Your task to perform on an android device: snooze an email in the gmail app Image 0: 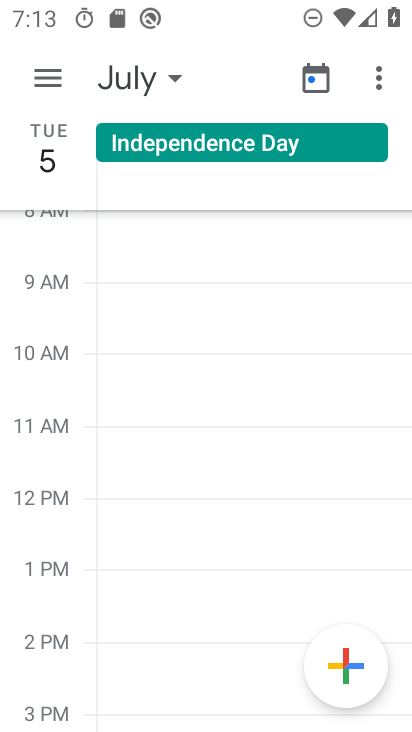
Step 0: press home button
Your task to perform on an android device: snooze an email in the gmail app Image 1: 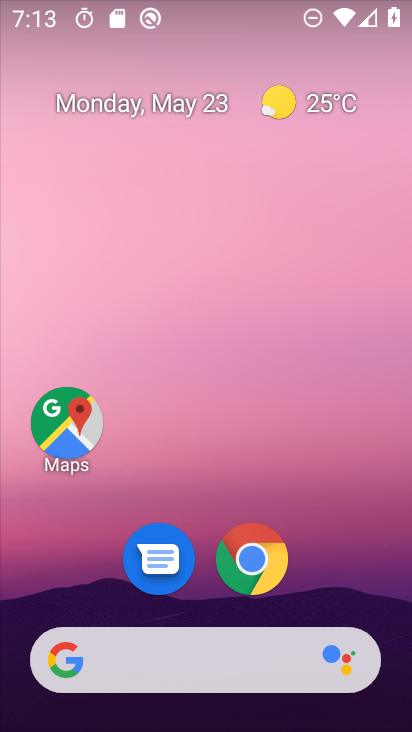
Step 1: drag from (391, 623) to (295, 0)
Your task to perform on an android device: snooze an email in the gmail app Image 2: 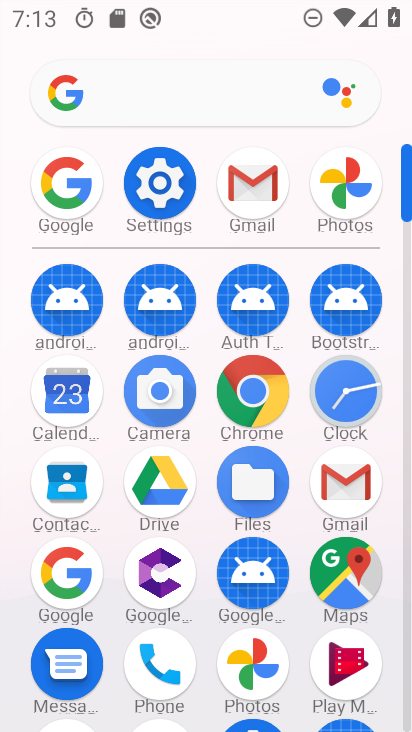
Step 2: click (334, 462)
Your task to perform on an android device: snooze an email in the gmail app Image 3: 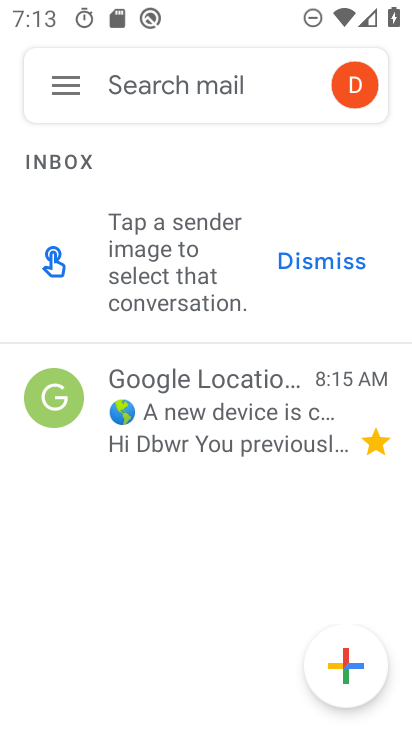
Step 3: click (228, 396)
Your task to perform on an android device: snooze an email in the gmail app Image 4: 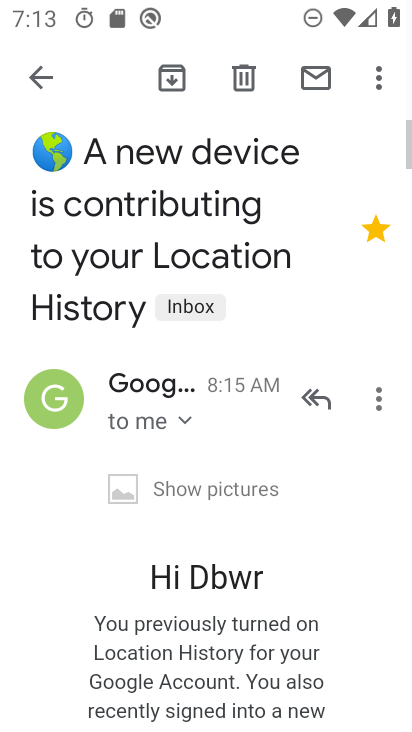
Step 4: click (375, 72)
Your task to perform on an android device: snooze an email in the gmail app Image 5: 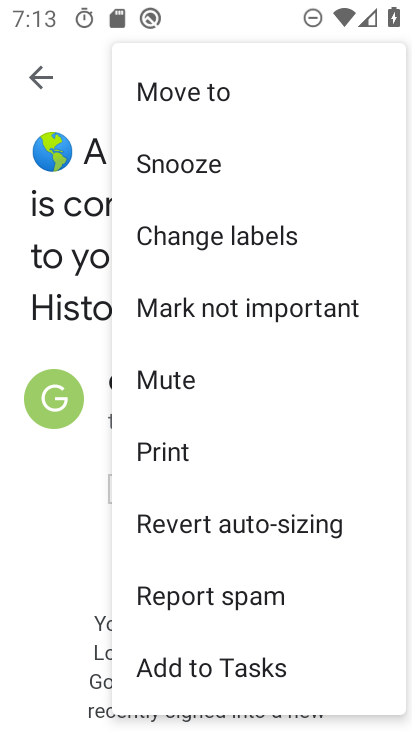
Step 5: click (176, 155)
Your task to perform on an android device: snooze an email in the gmail app Image 6: 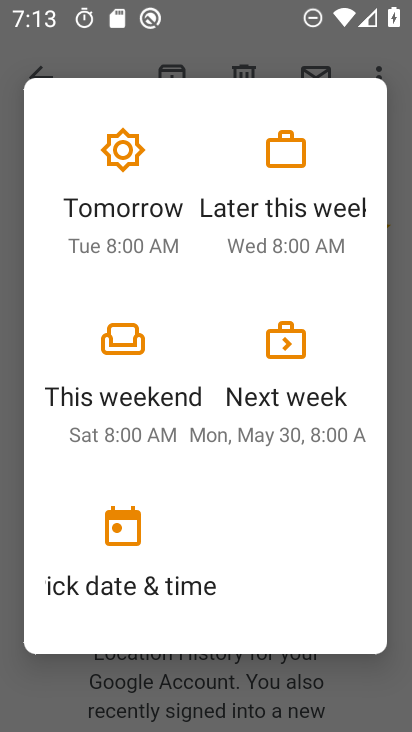
Step 6: click (132, 338)
Your task to perform on an android device: snooze an email in the gmail app Image 7: 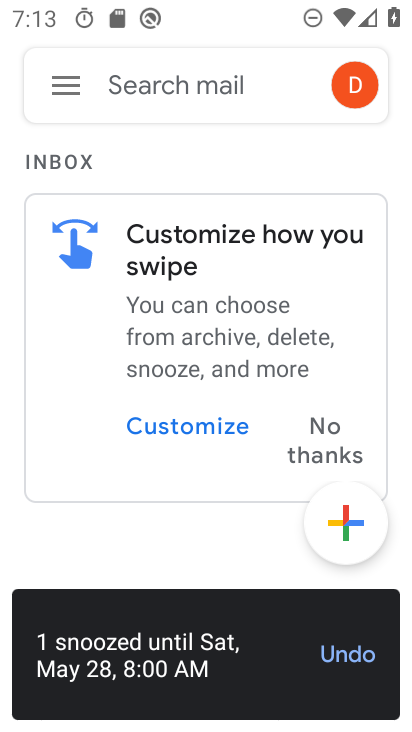
Step 7: task complete